Your task to perform on an android device: Open internet settings Image 0: 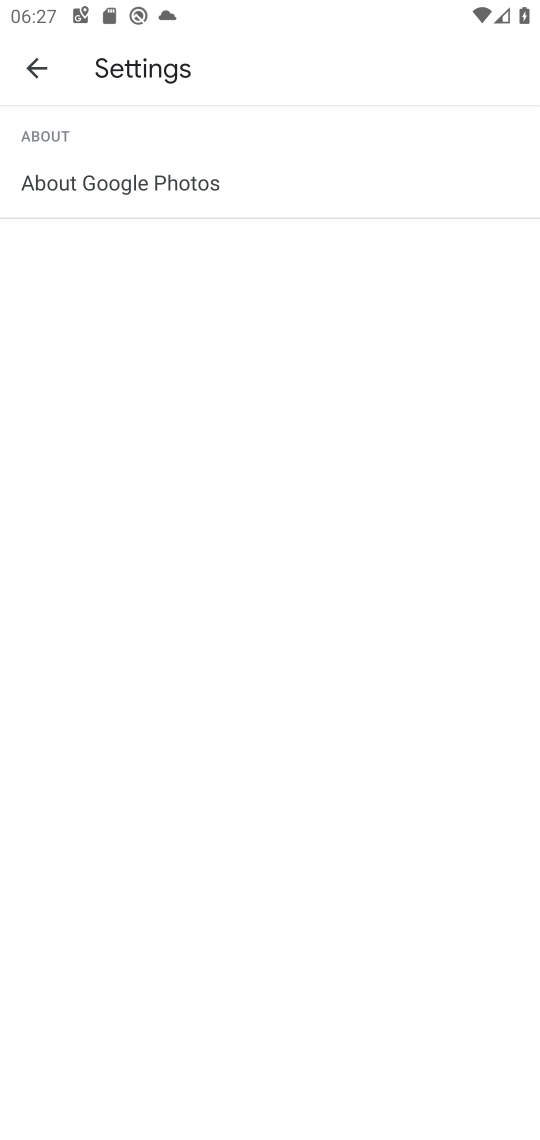
Step 0: press home button
Your task to perform on an android device: Open internet settings Image 1: 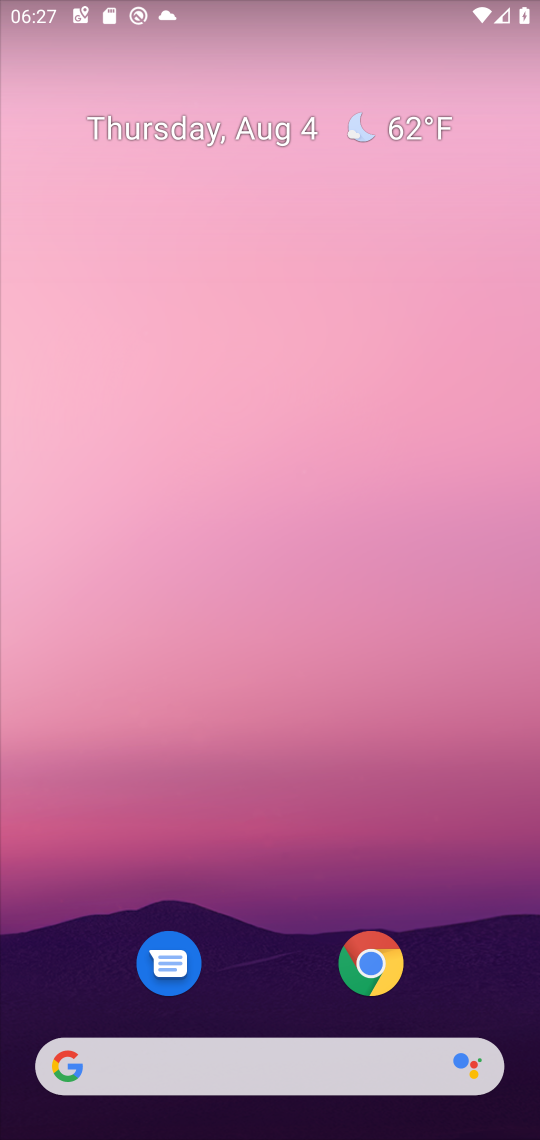
Step 1: drag from (265, 936) to (242, 122)
Your task to perform on an android device: Open internet settings Image 2: 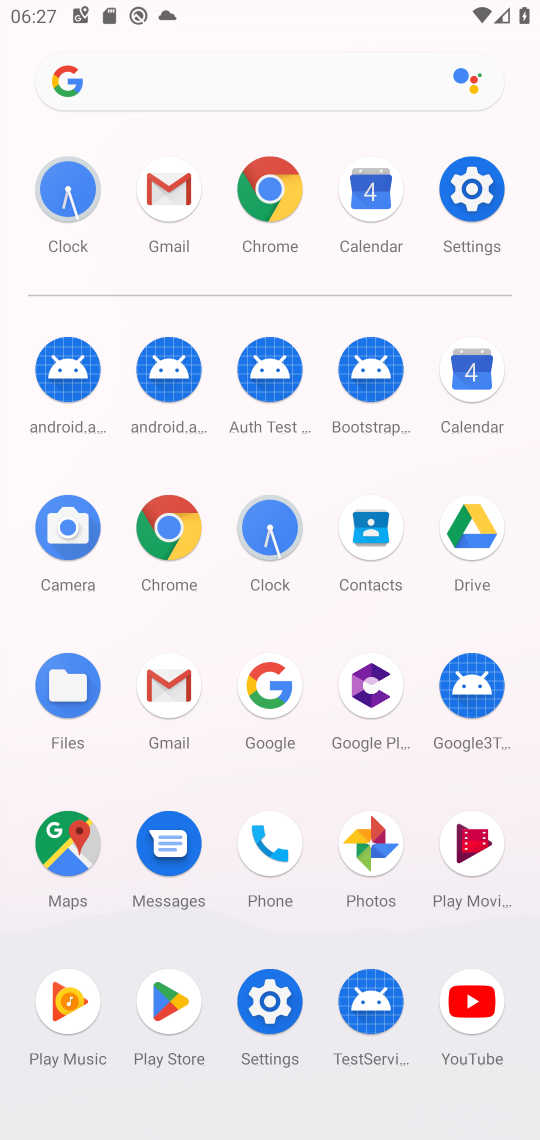
Step 2: click (479, 181)
Your task to perform on an android device: Open internet settings Image 3: 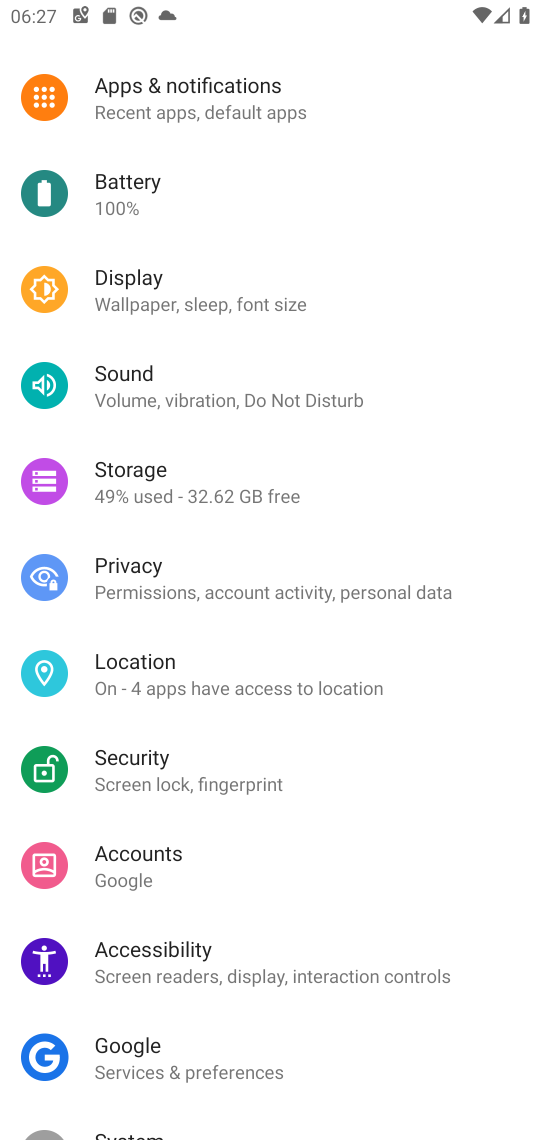
Step 3: drag from (226, 163) to (315, 905)
Your task to perform on an android device: Open internet settings Image 4: 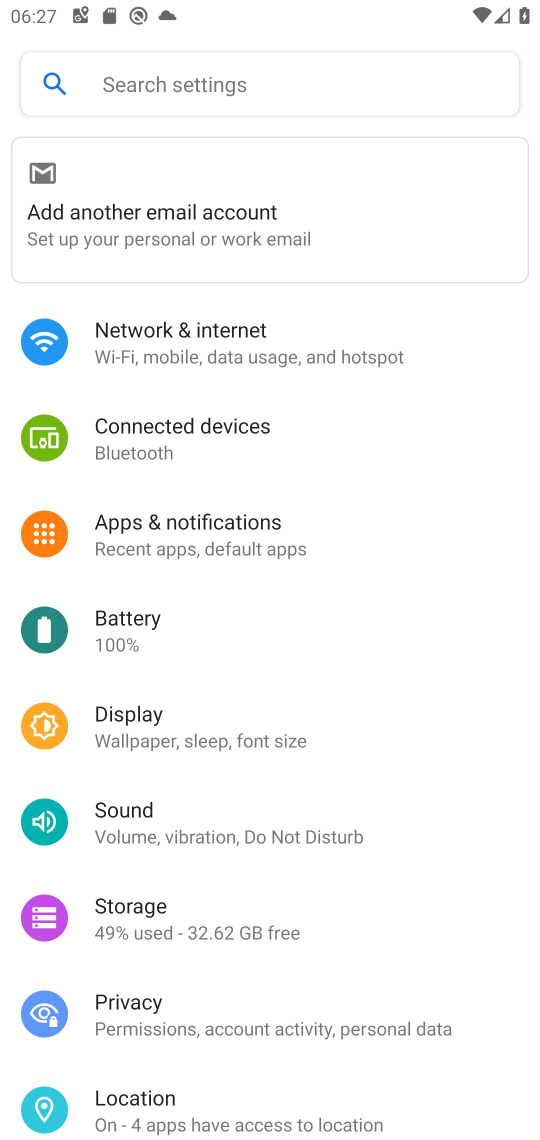
Step 4: click (217, 335)
Your task to perform on an android device: Open internet settings Image 5: 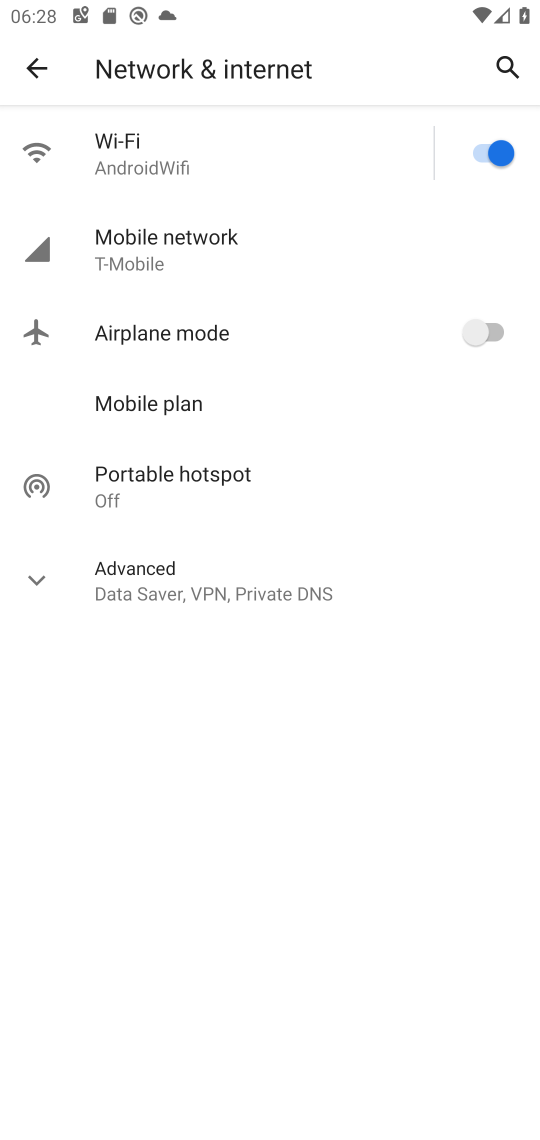
Step 5: task complete